Your task to perform on an android device: Search for Mexican restaurants on Maps Image 0: 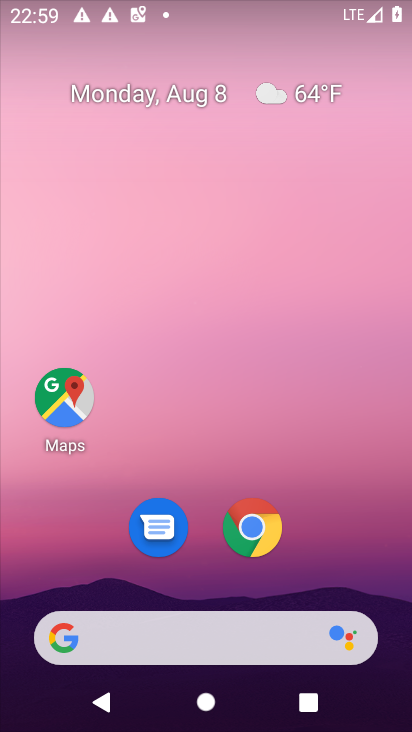
Step 0: click (51, 397)
Your task to perform on an android device: Search for Mexican restaurants on Maps Image 1: 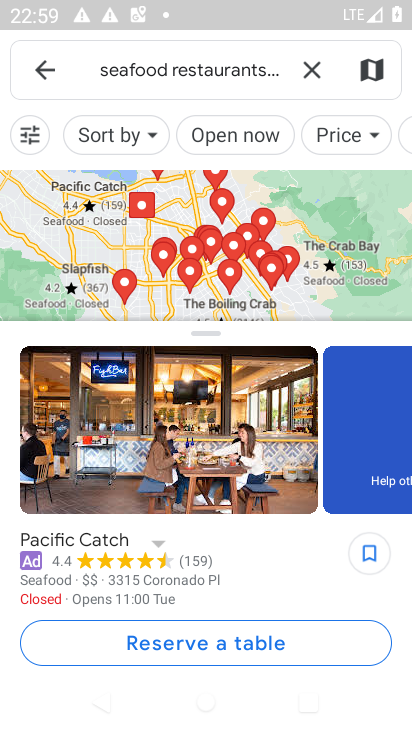
Step 1: click (303, 69)
Your task to perform on an android device: Search for Mexican restaurants on Maps Image 2: 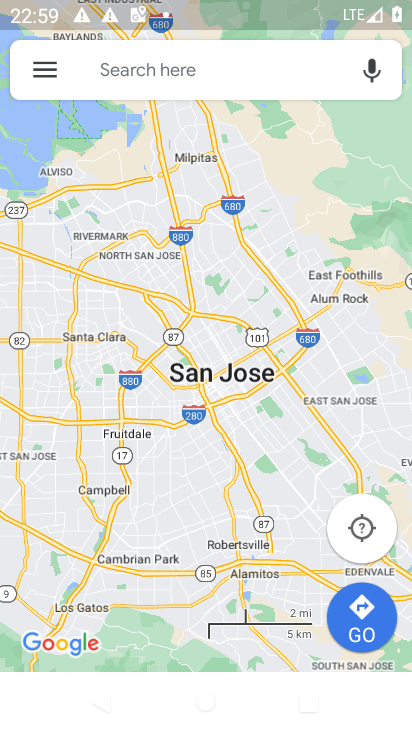
Step 2: click (139, 70)
Your task to perform on an android device: Search for Mexican restaurants on Maps Image 3: 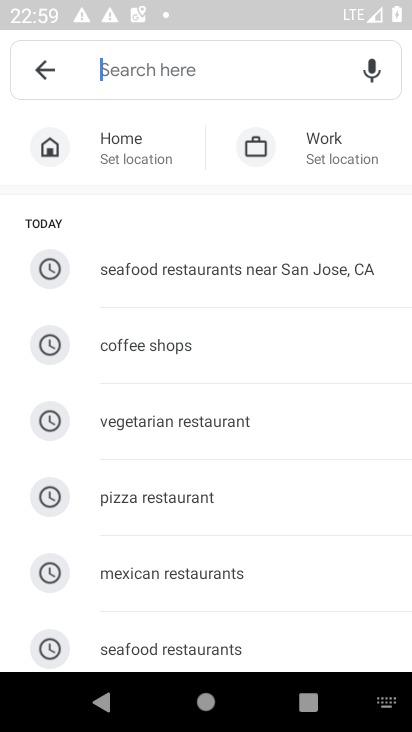
Step 3: type "xican restaurants"
Your task to perform on an android device: Search for Mexican restaurants on Maps Image 4: 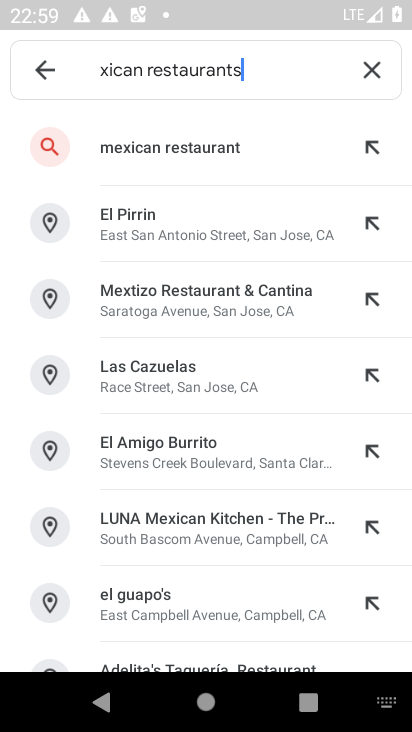
Step 4: click (373, 62)
Your task to perform on an android device: Search for Mexican restaurants on Maps Image 5: 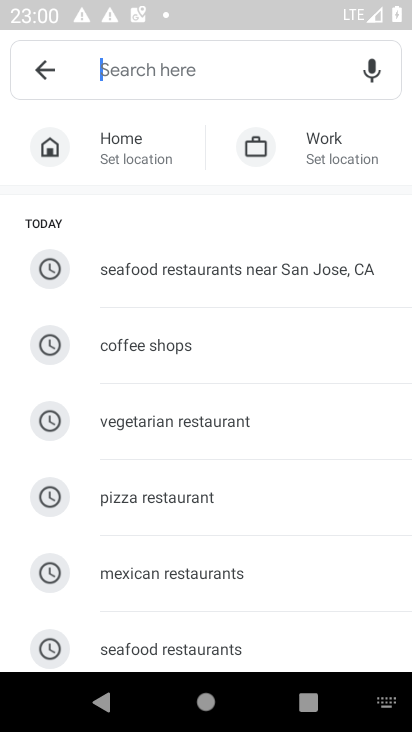
Step 5: type "Mexican restaurants"
Your task to perform on an android device: Search for Mexican restaurants on Maps Image 6: 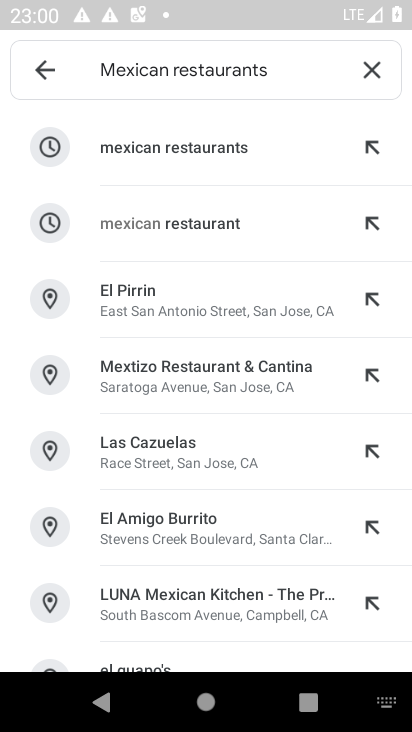
Step 6: click (176, 142)
Your task to perform on an android device: Search for Mexican restaurants on Maps Image 7: 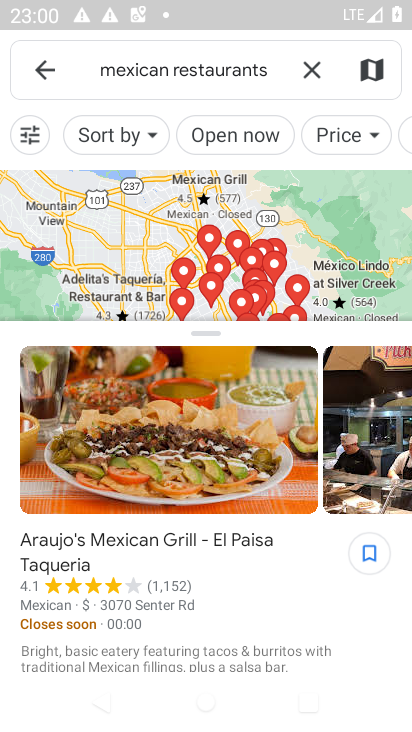
Step 7: task complete